Your task to perform on an android device: When is my next appointment? Image 0: 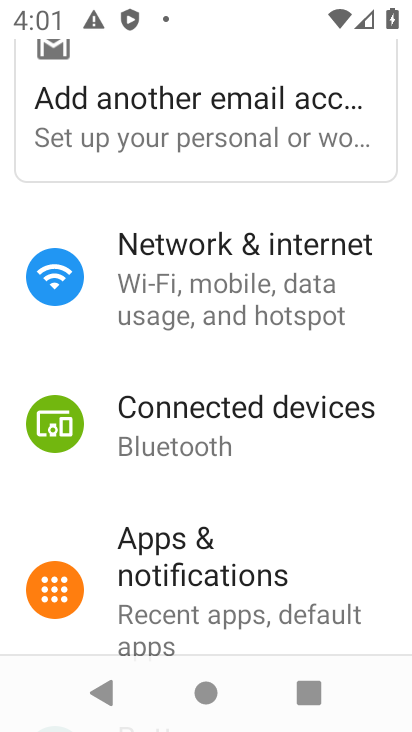
Step 0: task complete